Your task to perform on an android device: What's the weather? Image 0: 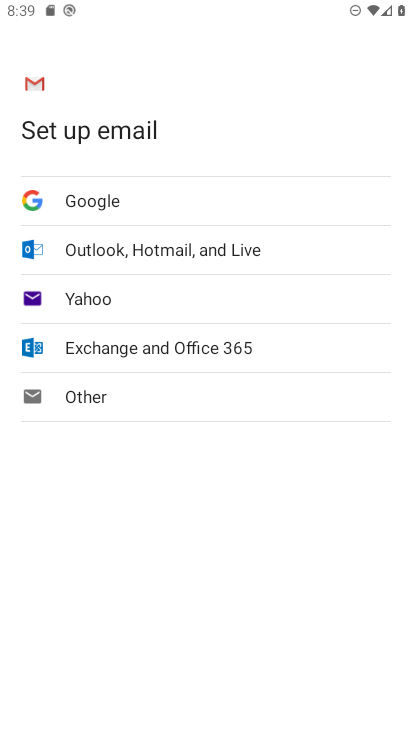
Step 0: press home button
Your task to perform on an android device: What's the weather? Image 1: 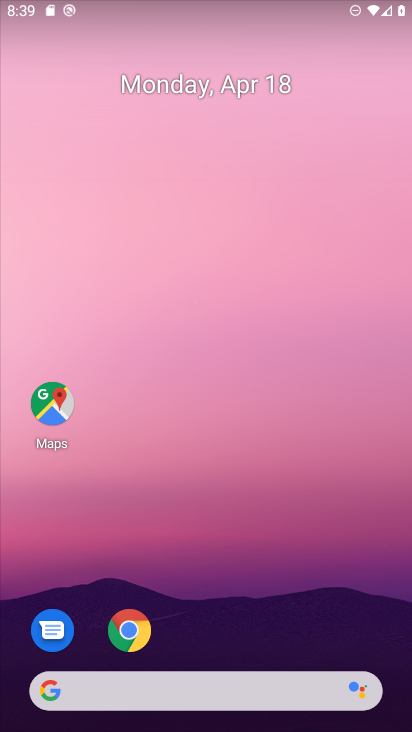
Step 1: click (255, 93)
Your task to perform on an android device: What's the weather? Image 2: 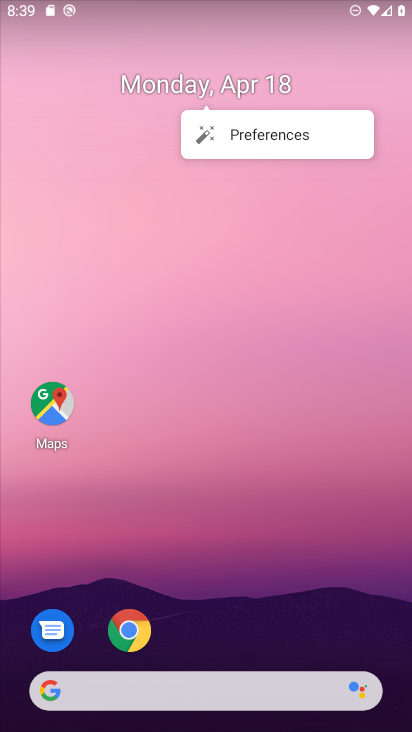
Step 2: click (253, 138)
Your task to perform on an android device: What's the weather? Image 3: 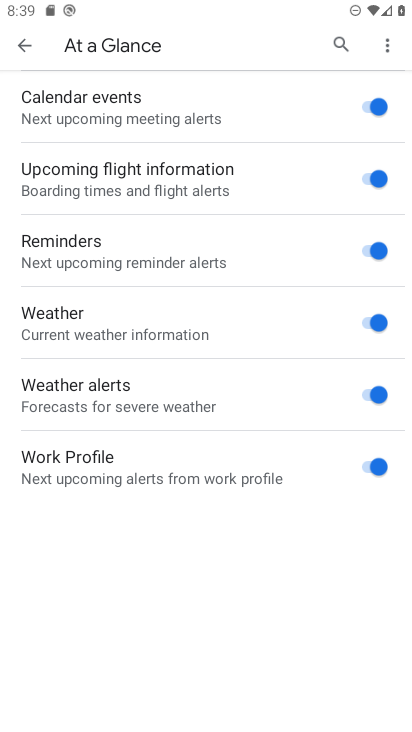
Step 3: click (81, 332)
Your task to perform on an android device: What's the weather? Image 4: 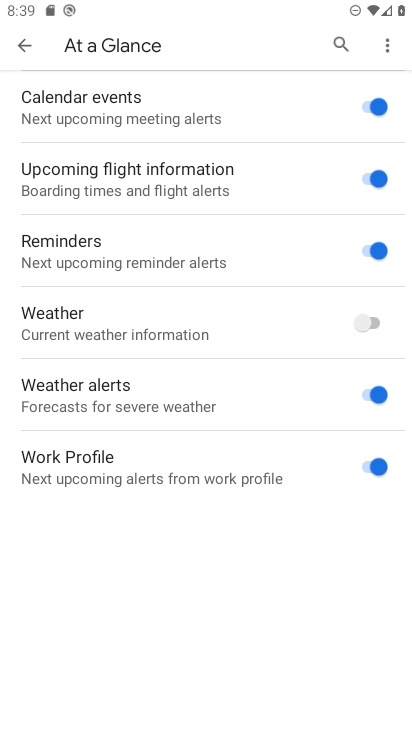
Step 4: click (366, 324)
Your task to perform on an android device: What's the weather? Image 5: 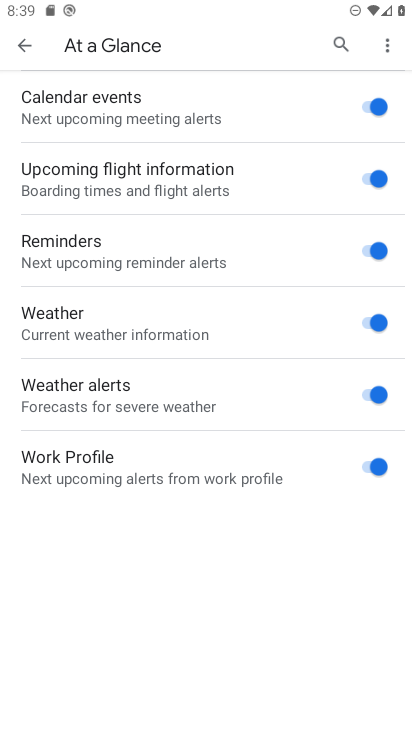
Step 5: press home button
Your task to perform on an android device: What's the weather? Image 6: 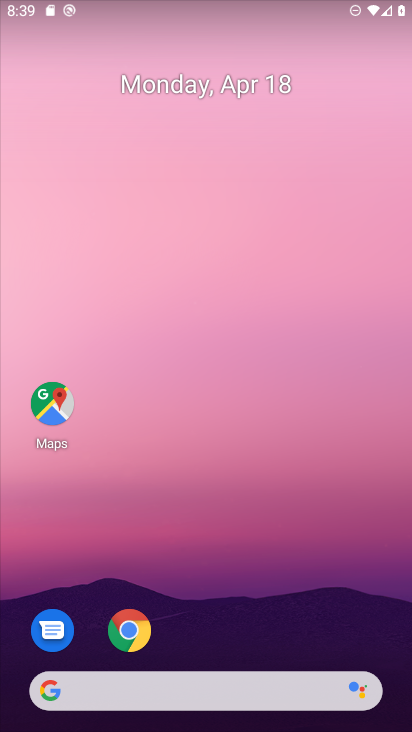
Step 6: drag from (255, 134) to (5, 123)
Your task to perform on an android device: What's the weather? Image 7: 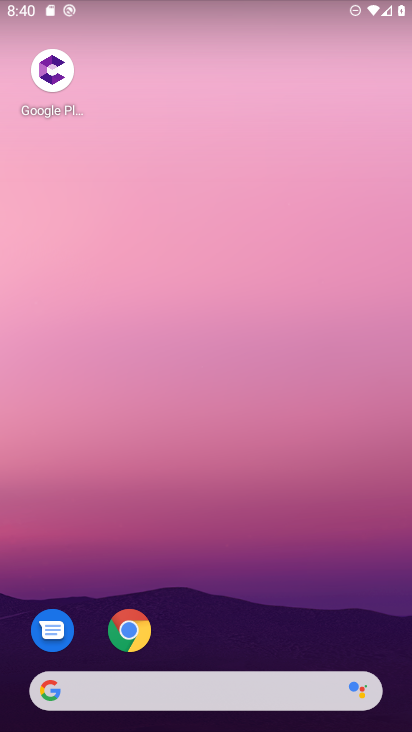
Step 7: drag from (311, 215) to (1, 186)
Your task to perform on an android device: What's the weather? Image 8: 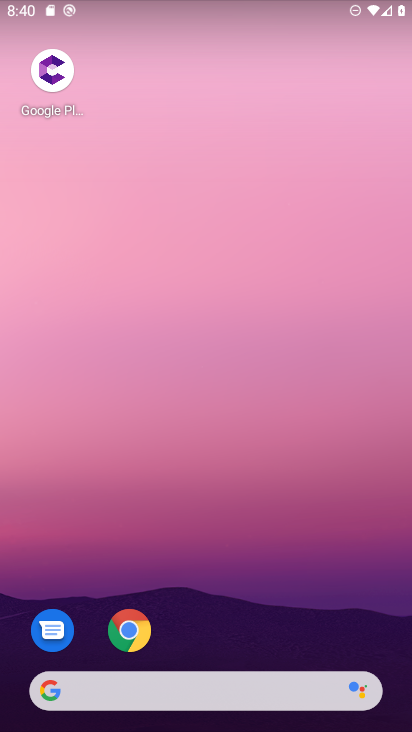
Step 8: drag from (57, 204) to (352, 198)
Your task to perform on an android device: What's the weather? Image 9: 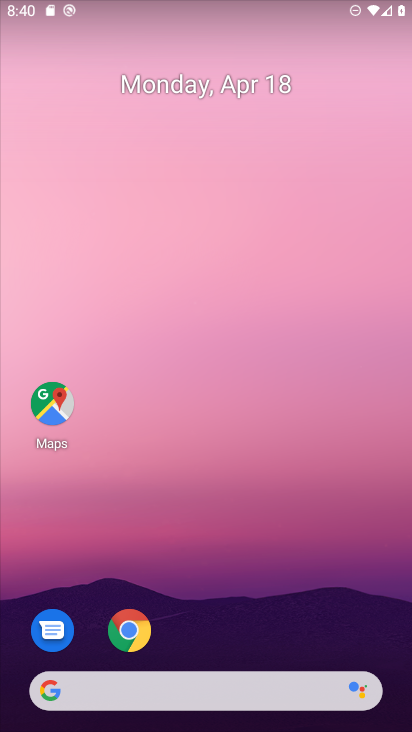
Step 9: drag from (137, 271) to (411, 287)
Your task to perform on an android device: What's the weather? Image 10: 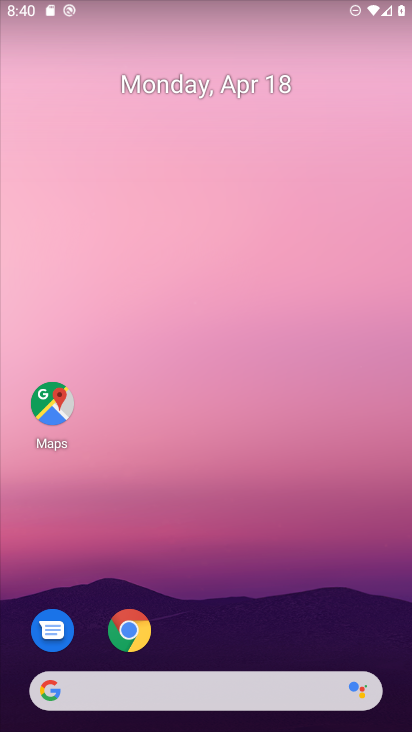
Step 10: click (215, 700)
Your task to perform on an android device: What's the weather? Image 11: 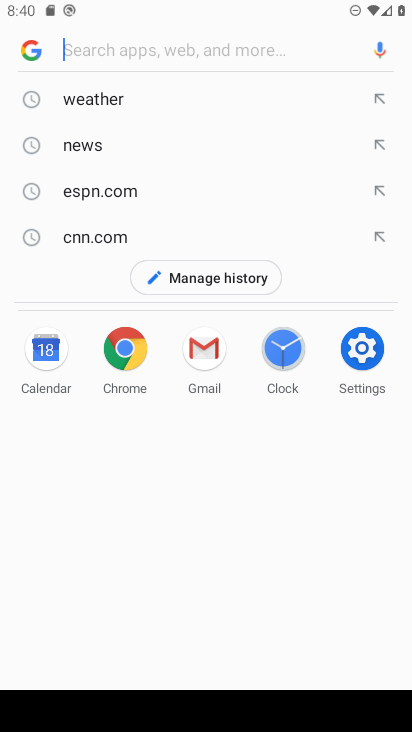
Step 11: type "weather"
Your task to perform on an android device: What's the weather? Image 12: 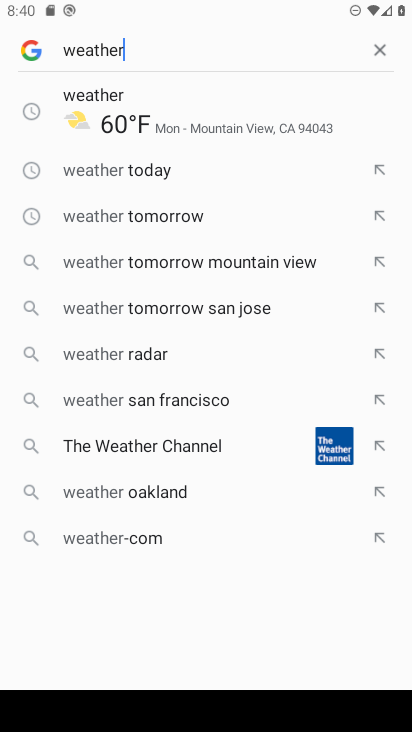
Step 12: click (194, 126)
Your task to perform on an android device: What's the weather? Image 13: 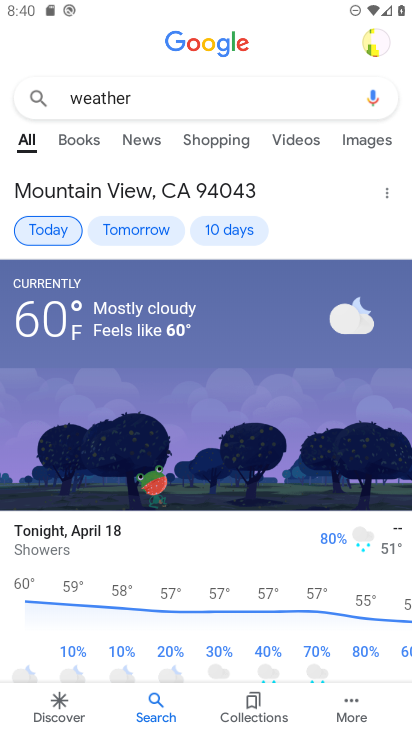
Step 13: task complete